Your task to perform on an android device: Is it going to rain today? Image 0: 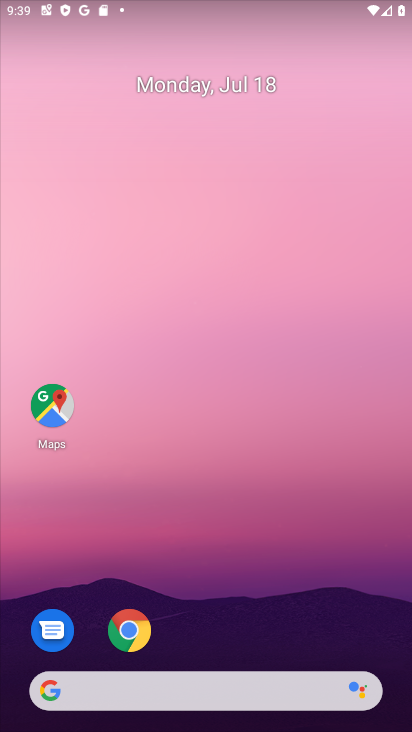
Step 0: drag from (378, 689) to (237, 55)
Your task to perform on an android device: Is it going to rain today? Image 1: 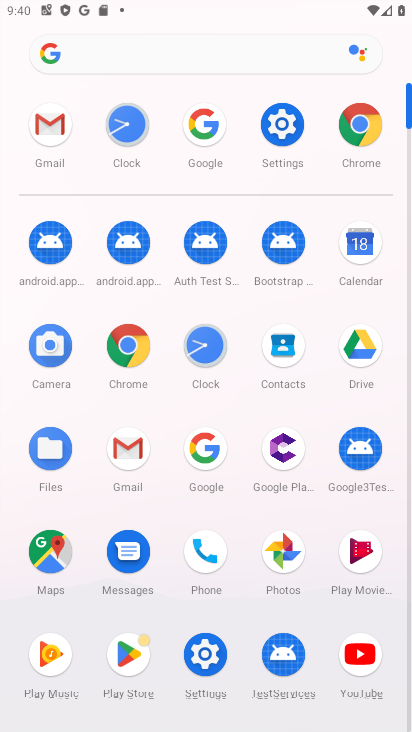
Step 1: click (210, 459)
Your task to perform on an android device: Is it going to rain today? Image 2: 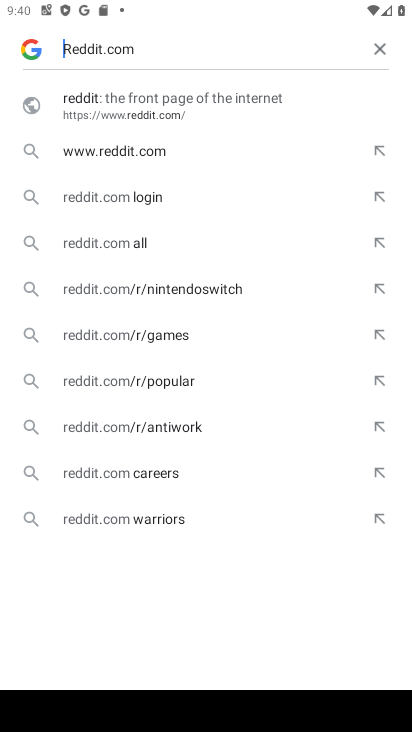
Step 2: click (377, 56)
Your task to perform on an android device: Is it going to rain today? Image 3: 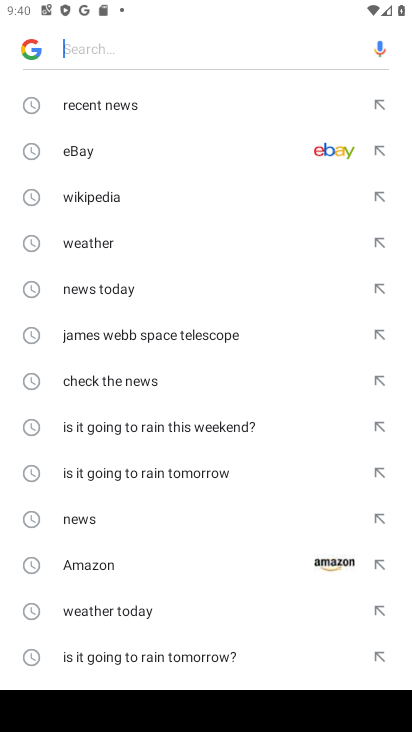
Step 3: drag from (80, 622) to (117, 271)
Your task to perform on an android device: Is it going to rain today? Image 4: 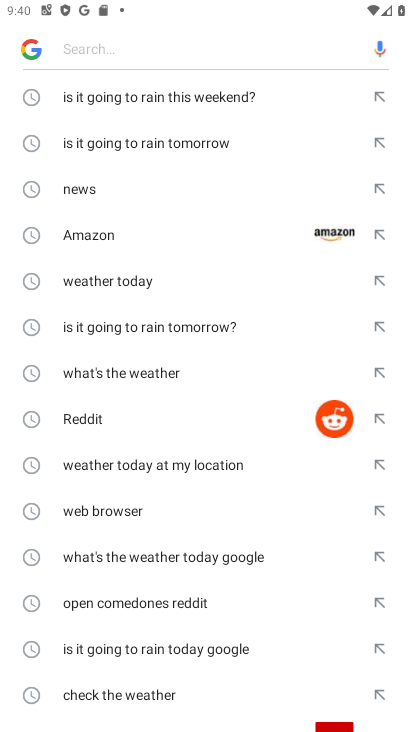
Step 4: click (122, 656)
Your task to perform on an android device: Is it going to rain today? Image 5: 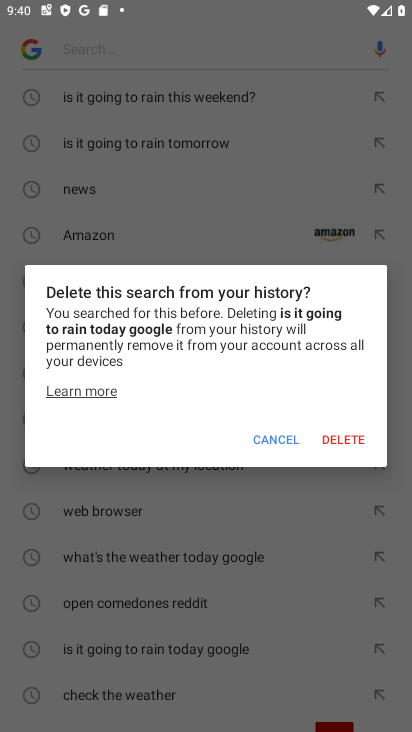
Step 5: click (289, 443)
Your task to perform on an android device: Is it going to rain today? Image 6: 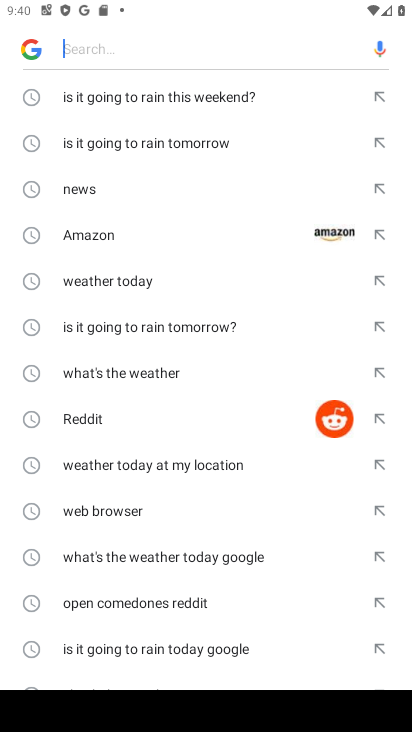
Step 6: click (135, 646)
Your task to perform on an android device: Is it going to rain today? Image 7: 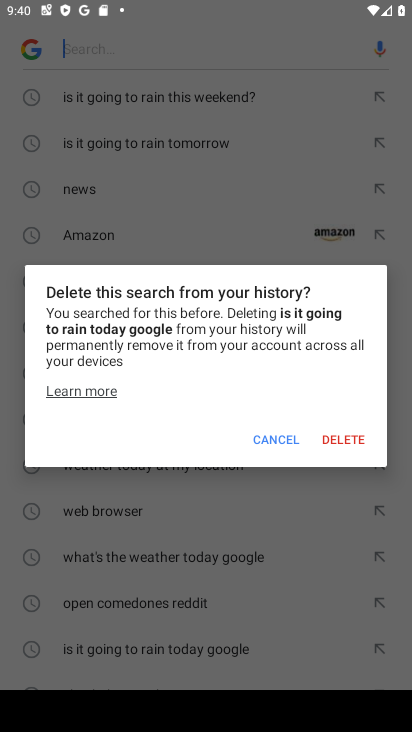
Step 7: task complete